Your task to perform on an android device: Open battery settings Image 0: 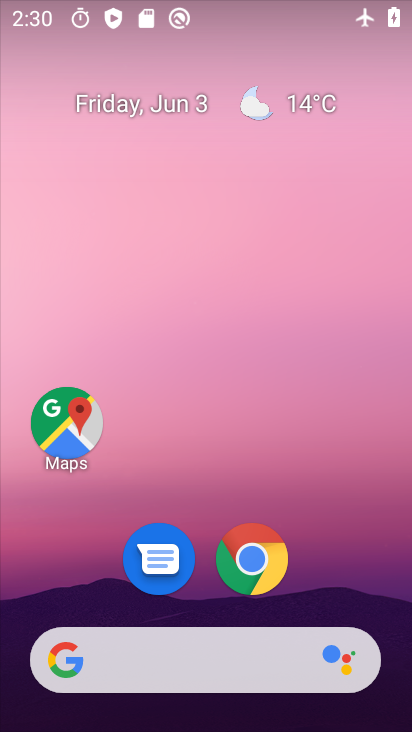
Step 0: drag from (227, 616) to (303, 2)
Your task to perform on an android device: Open battery settings Image 1: 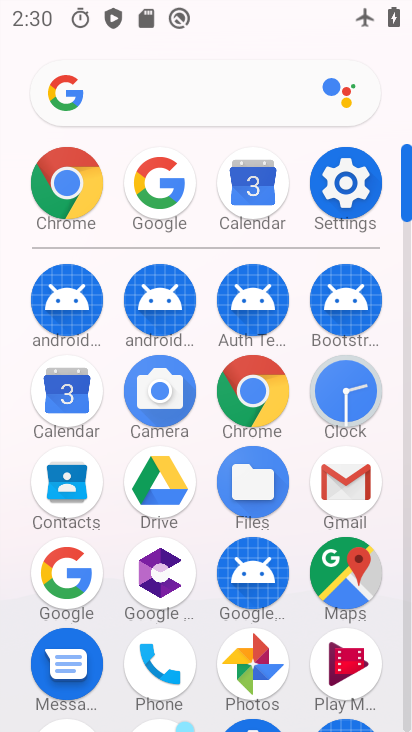
Step 1: click (338, 172)
Your task to perform on an android device: Open battery settings Image 2: 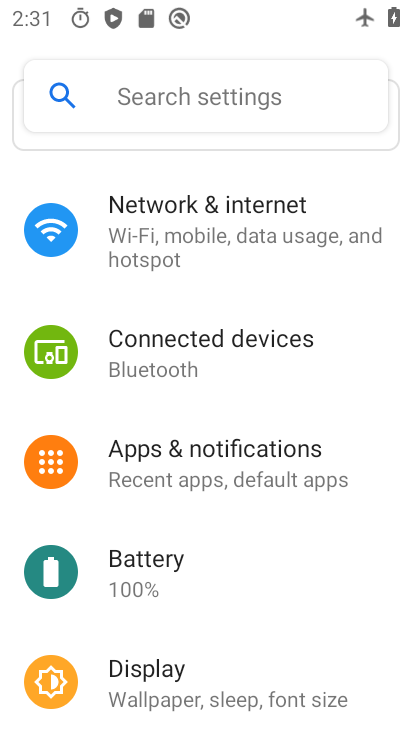
Step 2: click (161, 593)
Your task to perform on an android device: Open battery settings Image 3: 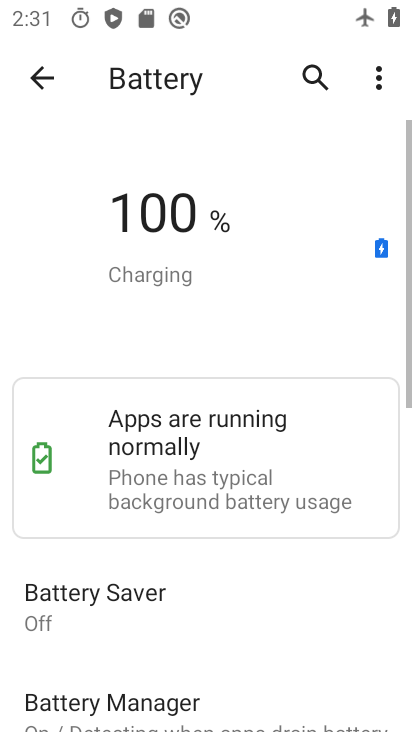
Step 3: task complete